Your task to perform on an android device: Turn off the flashlight Image 0: 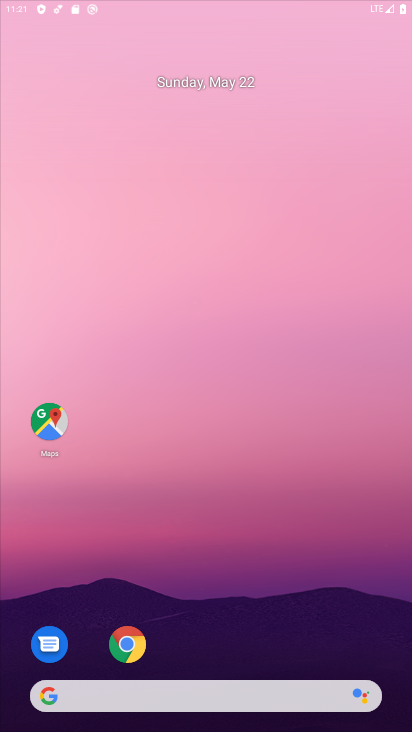
Step 0: click (315, 626)
Your task to perform on an android device: Turn off the flashlight Image 1: 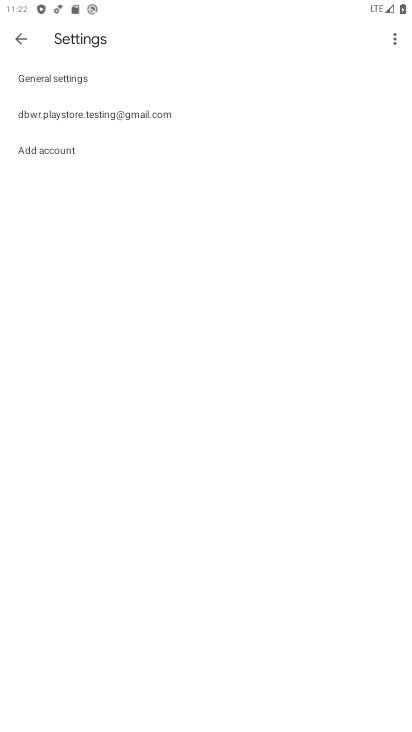
Step 1: drag from (228, 624) to (366, 324)
Your task to perform on an android device: Turn off the flashlight Image 2: 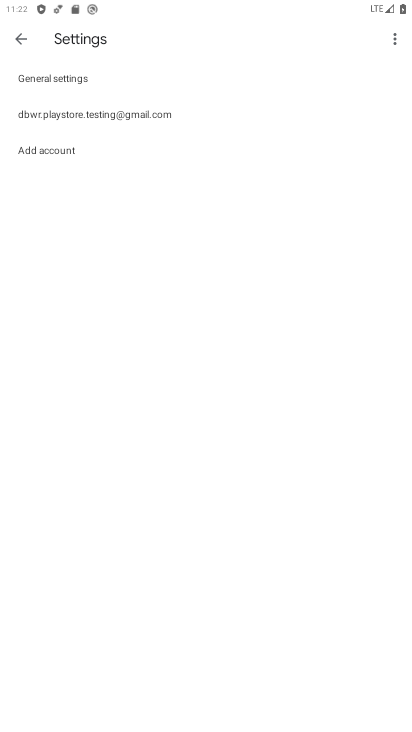
Step 2: press home button
Your task to perform on an android device: Turn off the flashlight Image 3: 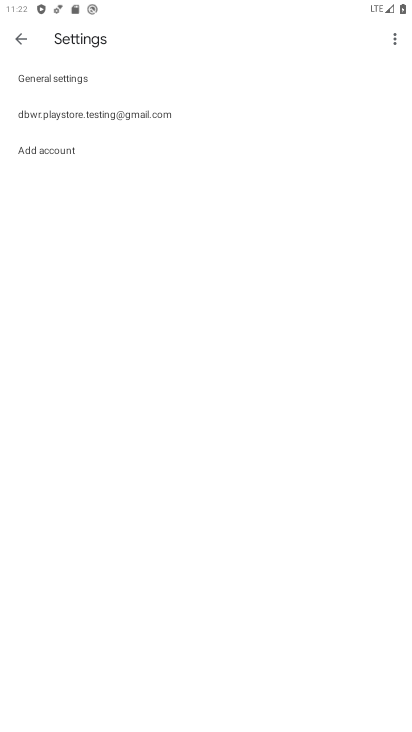
Step 3: drag from (366, 324) to (393, 391)
Your task to perform on an android device: Turn off the flashlight Image 4: 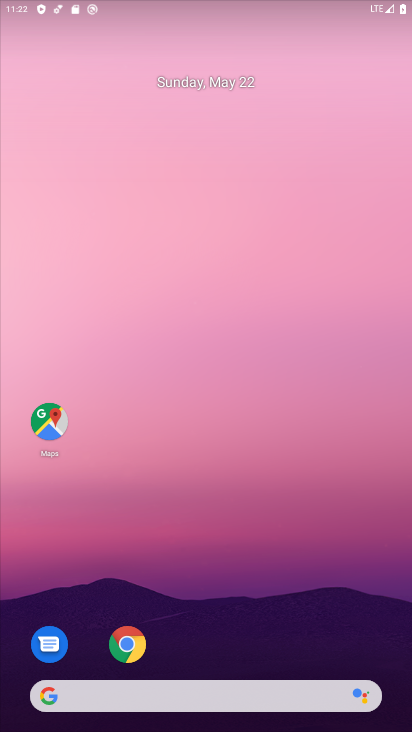
Step 4: drag from (305, 591) to (325, 20)
Your task to perform on an android device: Turn off the flashlight Image 5: 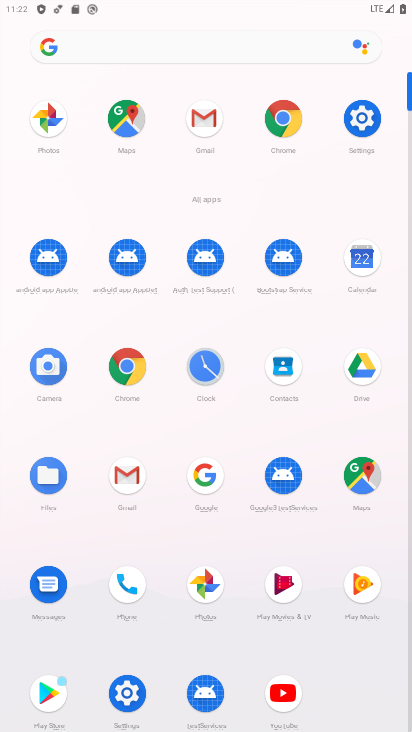
Step 5: click (353, 122)
Your task to perform on an android device: Turn off the flashlight Image 6: 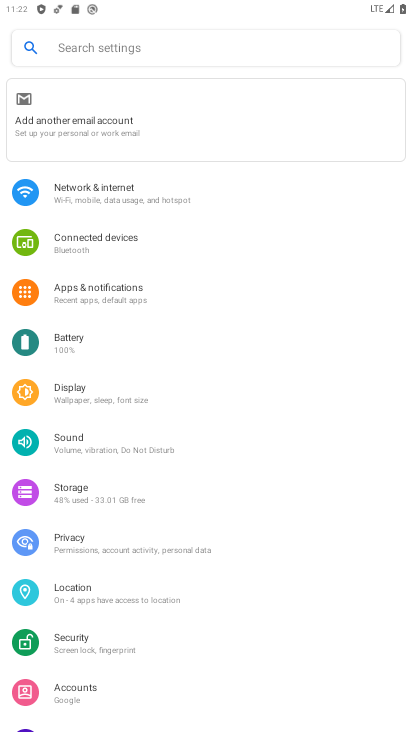
Step 6: click (72, 283)
Your task to perform on an android device: Turn off the flashlight Image 7: 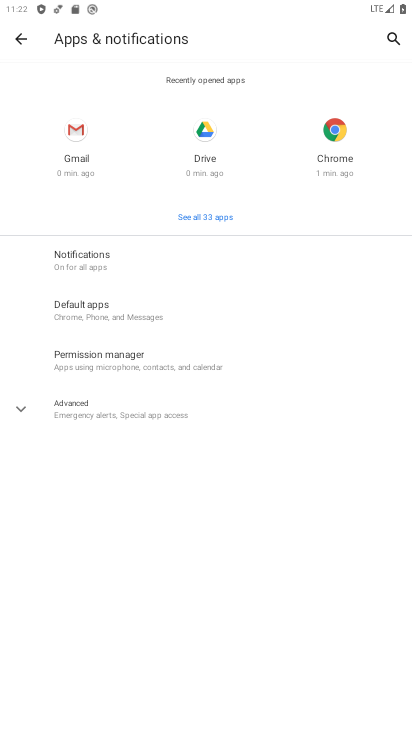
Step 7: click (134, 416)
Your task to perform on an android device: Turn off the flashlight Image 8: 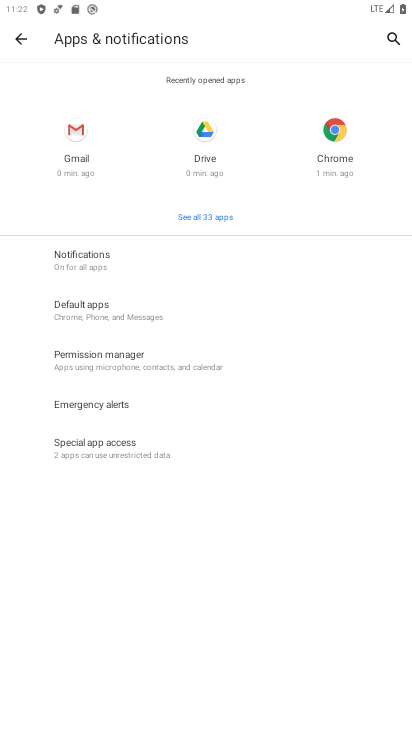
Step 8: click (123, 446)
Your task to perform on an android device: Turn off the flashlight Image 9: 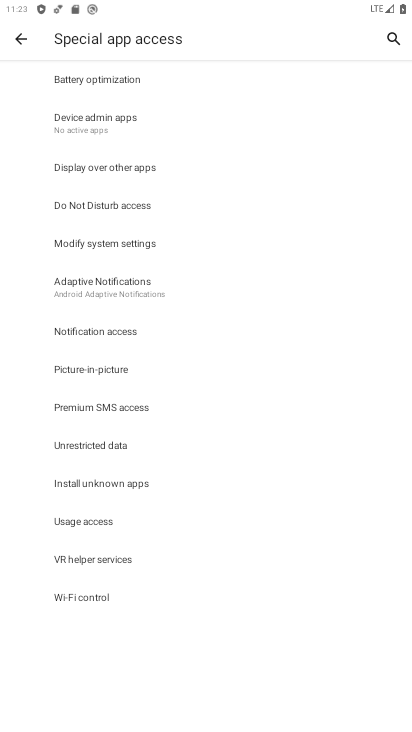
Step 9: task complete